Your task to perform on an android device: turn notification dots on Image 0: 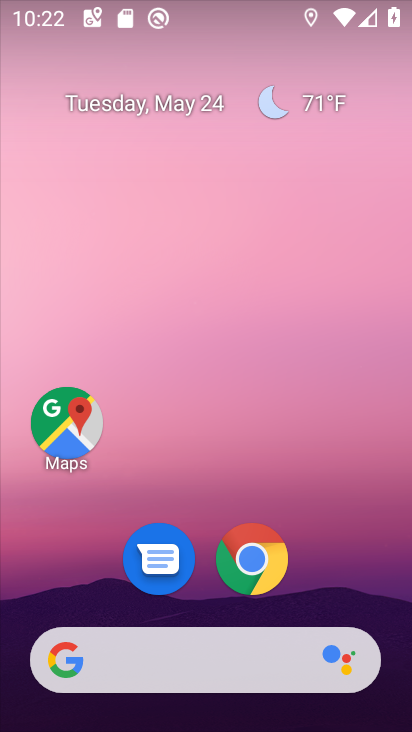
Step 0: drag from (389, 647) to (272, 141)
Your task to perform on an android device: turn notification dots on Image 1: 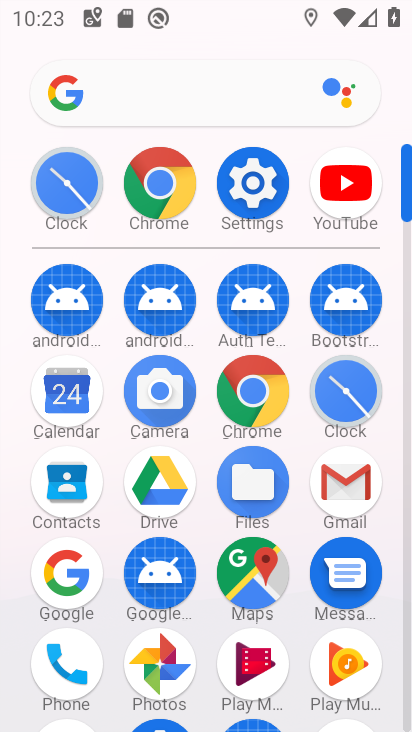
Step 1: click (264, 171)
Your task to perform on an android device: turn notification dots on Image 2: 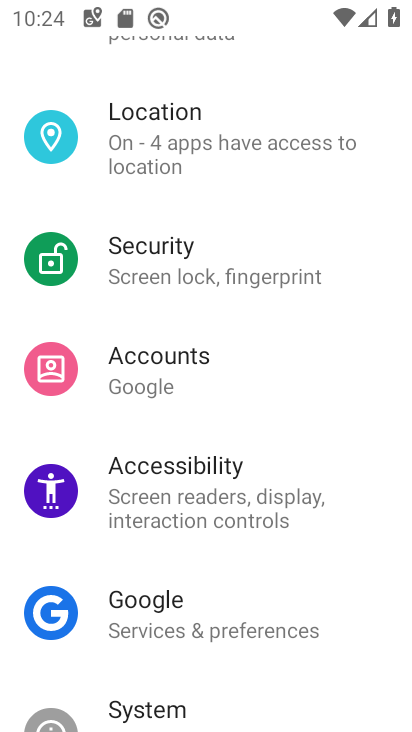
Step 2: drag from (235, 114) to (194, 516)
Your task to perform on an android device: turn notification dots on Image 3: 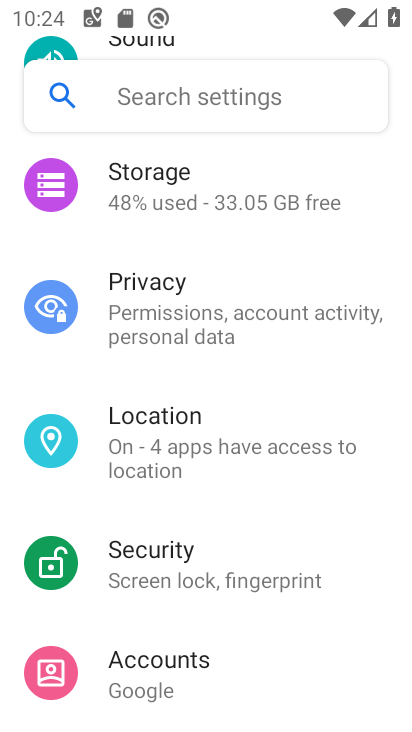
Step 3: drag from (239, 237) to (226, 631)
Your task to perform on an android device: turn notification dots on Image 4: 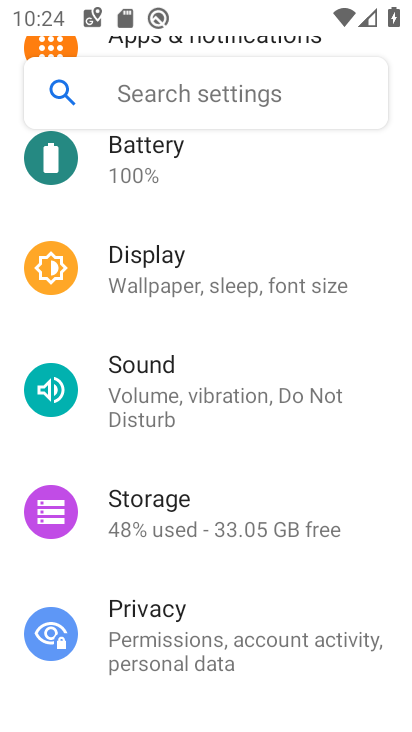
Step 4: drag from (230, 220) to (245, 597)
Your task to perform on an android device: turn notification dots on Image 5: 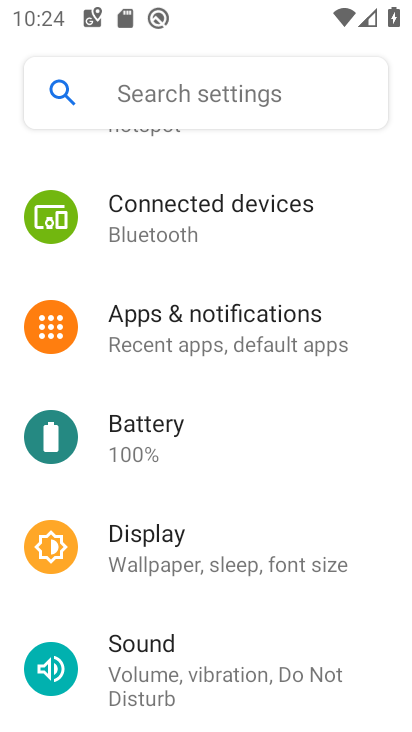
Step 5: click (253, 331)
Your task to perform on an android device: turn notification dots on Image 6: 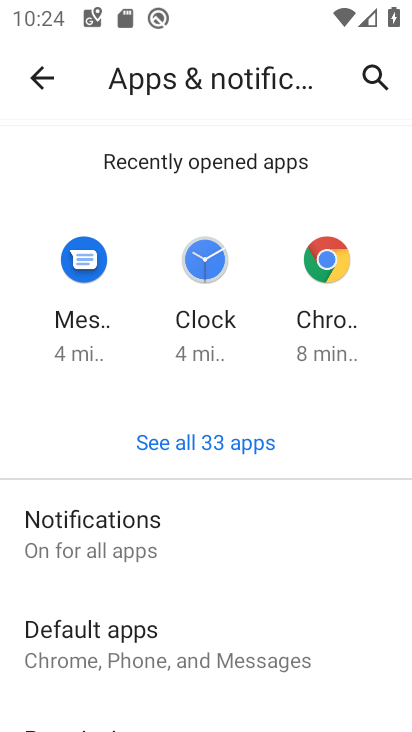
Step 6: click (230, 480)
Your task to perform on an android device: turn notification dots on Image 7: 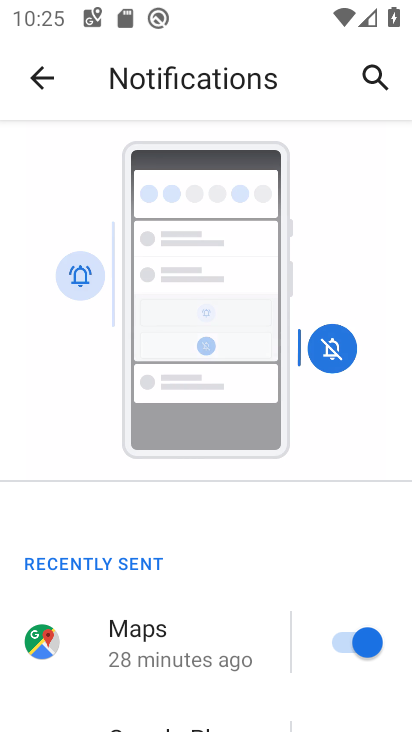
Step 7: drag from (160, 662) to (177, 3)
Your task to perform on an android device: turn notification dots on Image 8: 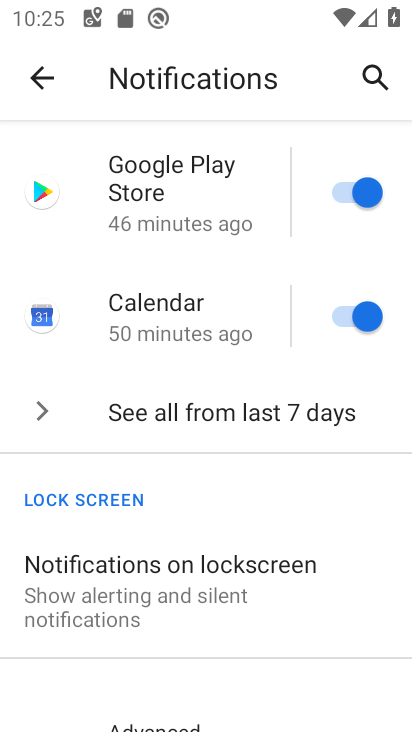
Step 8: drag from (232, 621) to (204, 67)
Your task to perform on an android device: turn notification dots on Image 9: 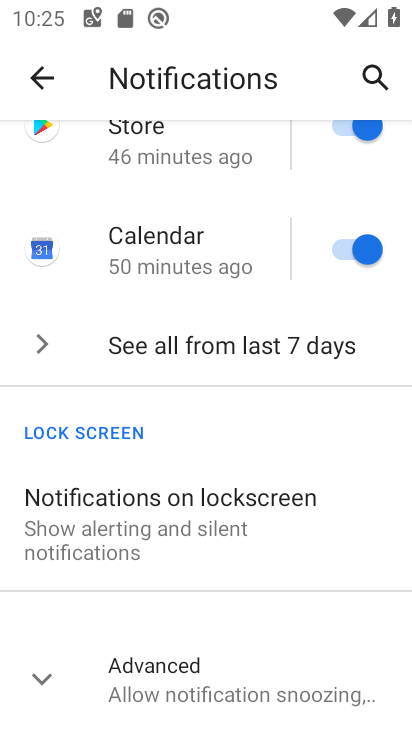
Step 9: click (156, 667)
Your task to perform on an android device: turn notification dots on Image 10: 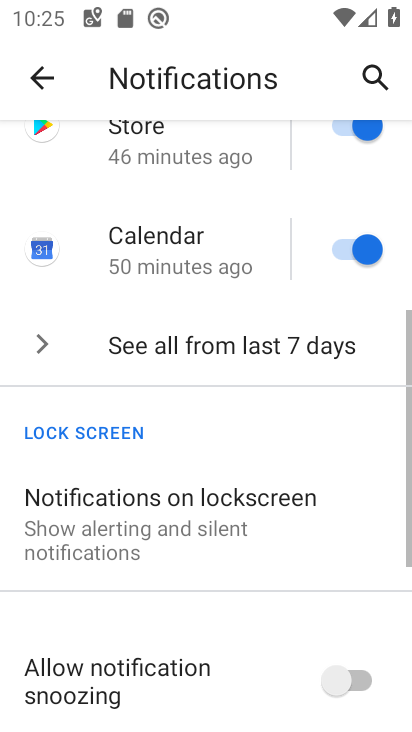
Step 10: drag from (158, 678) to (218, 81)
Your task to perform on an android device: turn notification dots on Image 11: 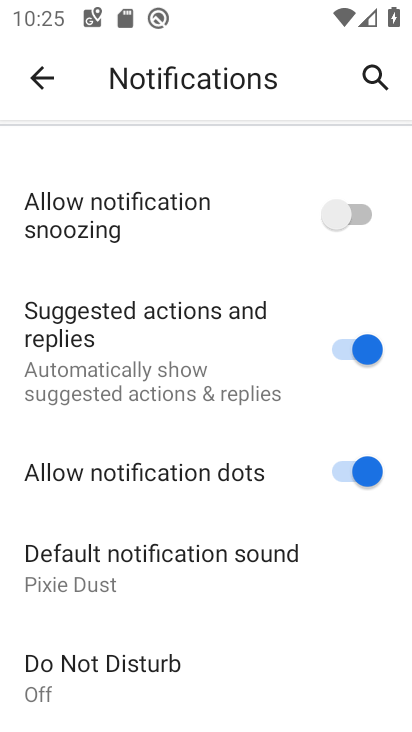
Step 11: click (323, 474)
Your task to perform on an android device: turn notification dots on Image 12: 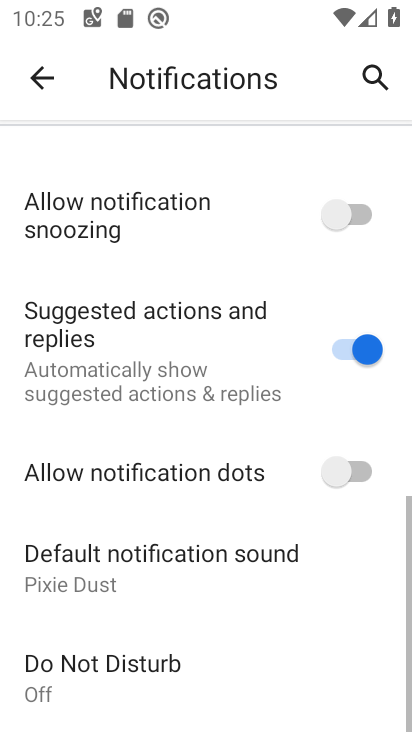
Step 12: click (323, 474)
Your task to perform on an android device: turn notification dots on Image 13: 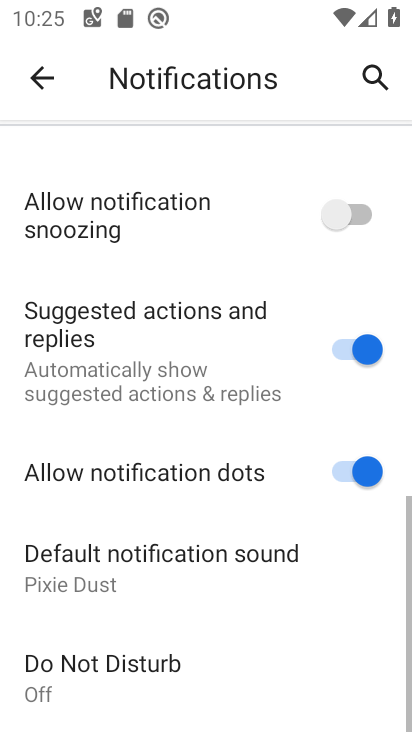
Step 13: task complete